Your task to perform on an android device: turn off improve location accuracy Image 0: 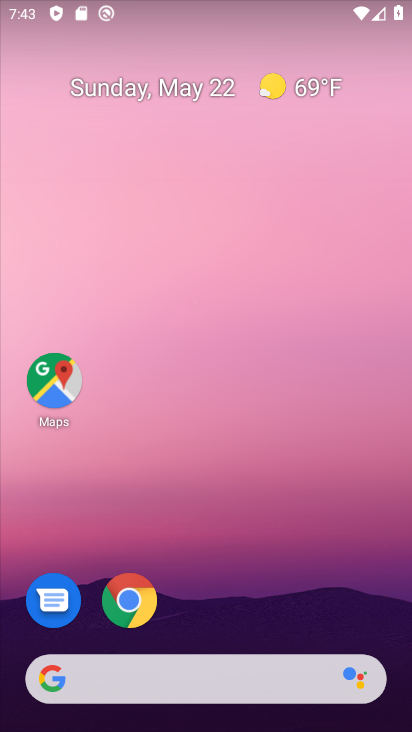
Step 0: drag from (274, 529) to (275, 149)
Your task to perform on an android device: turn off improve location accuracy Image 1: 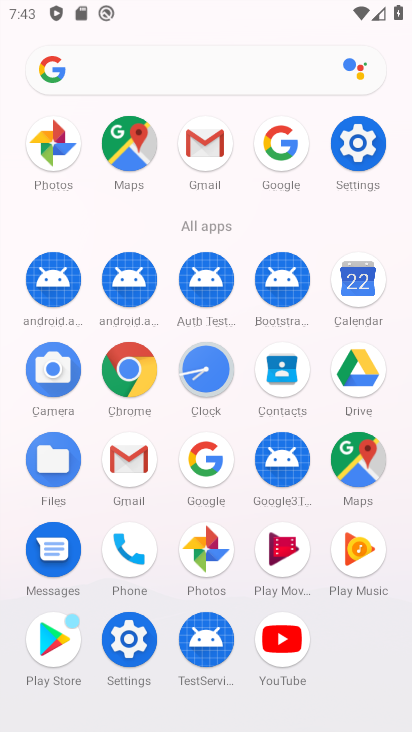
Step 1: click (366, 140)
Your task to perform on an android device: turn off improve location accuracy Image 2: 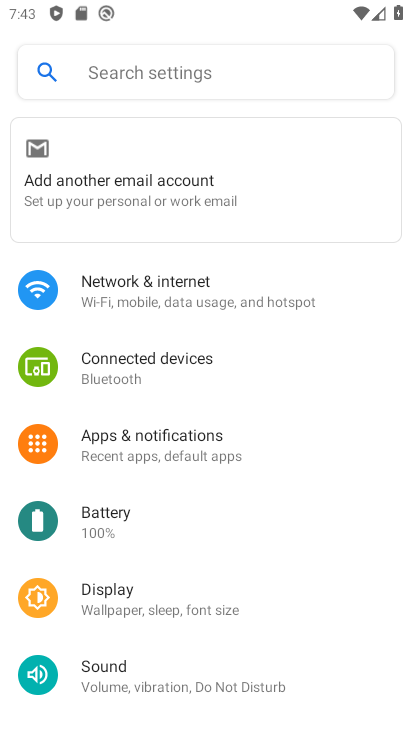
Step 2: drag from (262, 545) to (243, 97)
Your task to perform on an android device: turn off improve location accuracy Image 3: 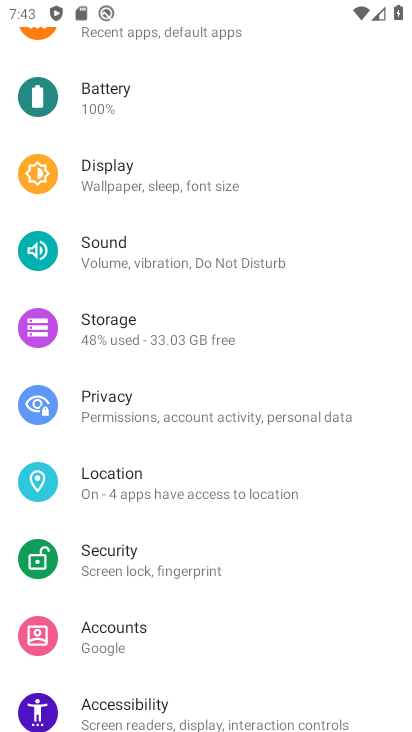
Step 3: click (93, 475)
Your task to perform on an android device: turn off improve location accuracy Image 4: 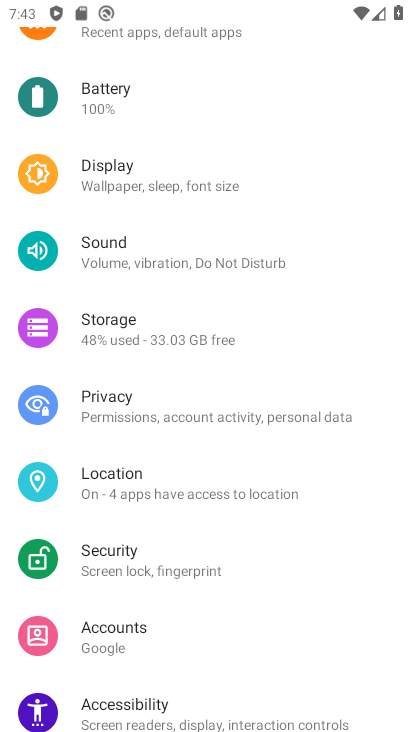
Step 4: click (180, 480)
Your task to perform on an android device: turn off improve location accuracy Image 5: 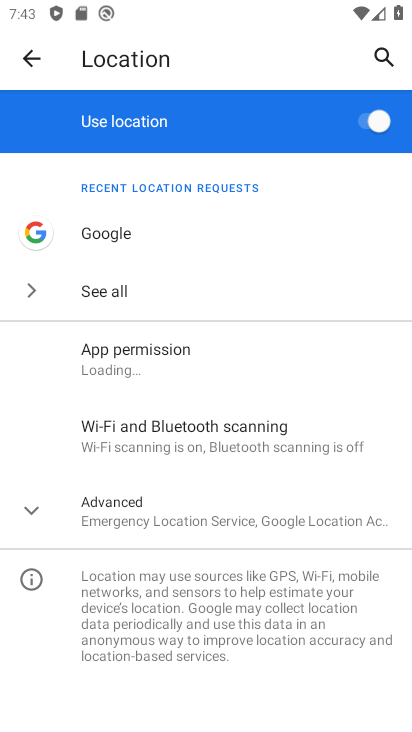
Step 5: click (152, 516)
Your task to perform on an android device: turn off improve location accuracy Image 6: 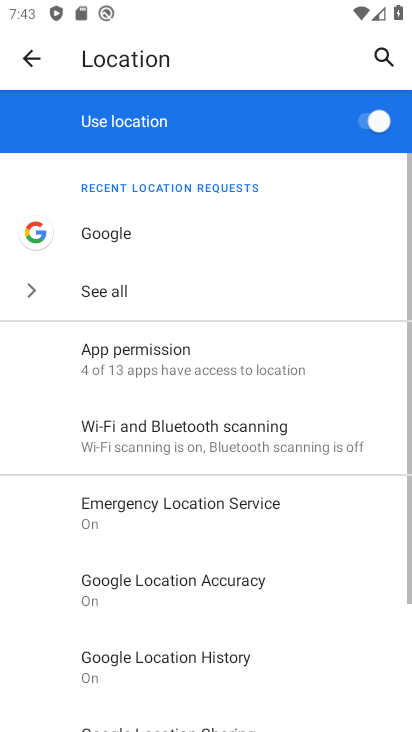
Step 6: drag from (256, 557) to (264, 391)
Your task to perform on an android device: turn off improve location accuracy Image 7: 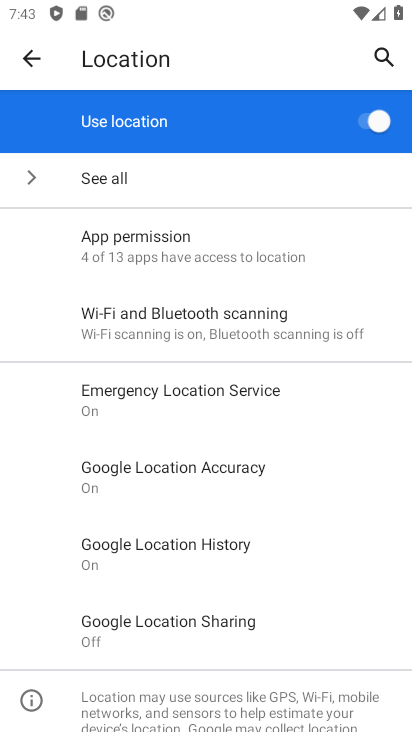
Step 7: click (265, 474)
Your task to perform on an android device: turn off improve location accuracy Image 8: 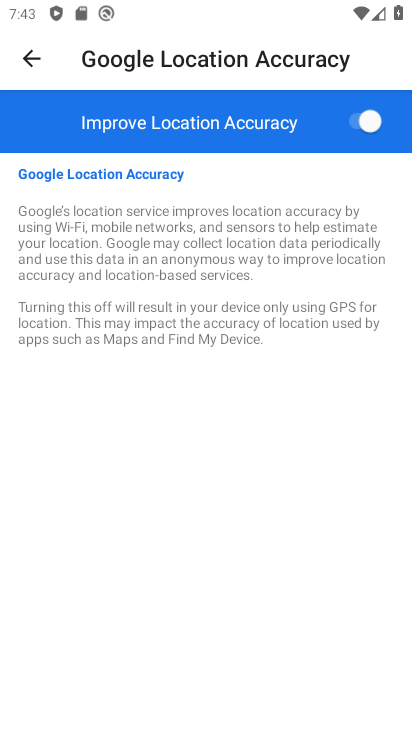
Step 8: click (365, 131)
Your task to perform on an android device: turn off improve location accuracy Image 9: 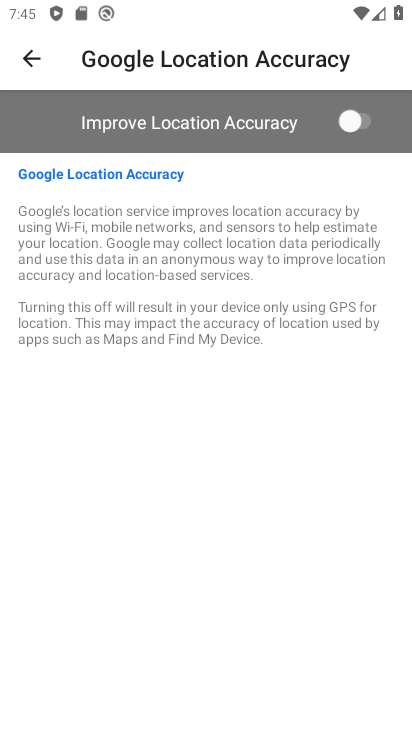
Step 9: task complete